Your task to perform on an android device: see tabs open on other devices in the chrome app Image 0: 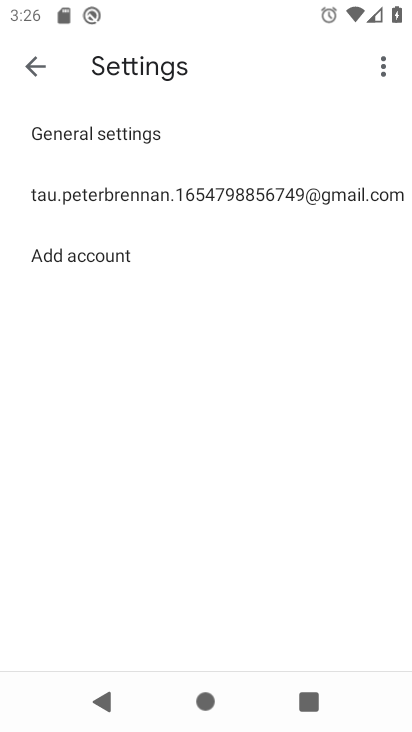
Step 0: press home button
Your task to perform on an android device: see tabs open on other devices in the chrome app Image 1: 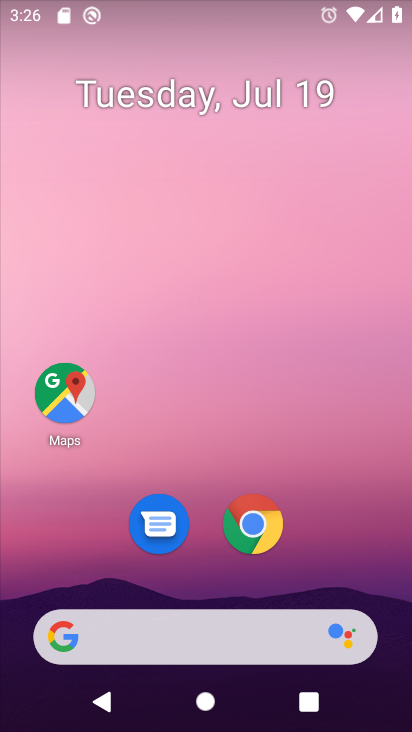
Step 1: click (264, 520)
Your task to perform on an android device: see tabs open on other devices in the chrome app Image 2: 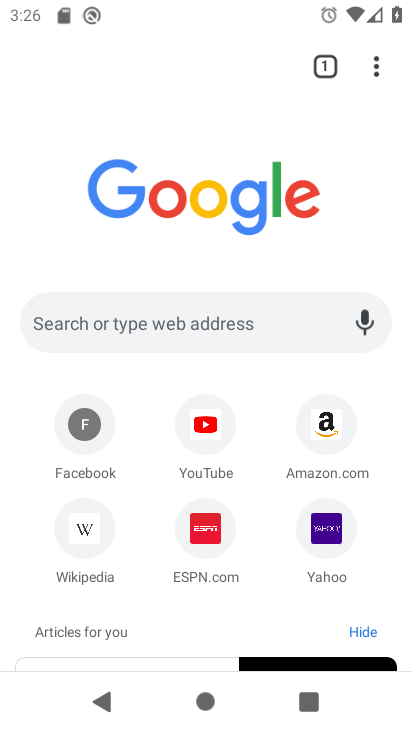
Step 2: click (375, 62)
Your task to perform on an android device: see tabs open on other devices in the chrome app Image 3: 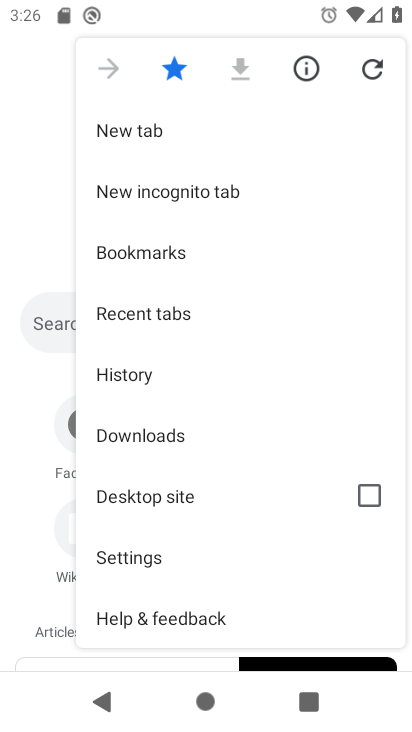
Step 3: click (183, 315)
Your task to perform on an android device: see tabs open on other devices in the chrome app Image 4: 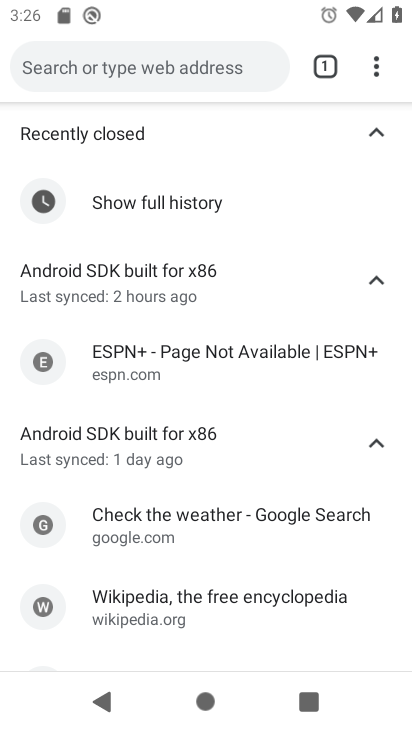
Step 4: task complete